Your task to perform on an android device: turn off javascript in the chrome app Image 0: 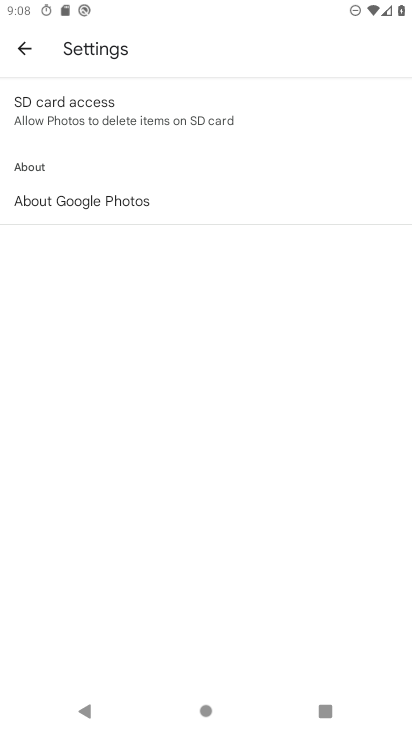
Step 0: press home button
Your task to perform on an android device: turn off javascript in the chrome app Image 1: 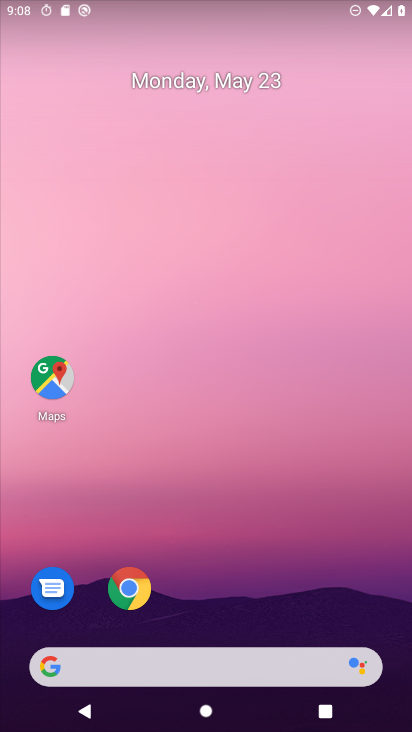
Step 1: click (129, 587)
Your task to perform on an android device: turn off javascript in the chrome app Image 2: 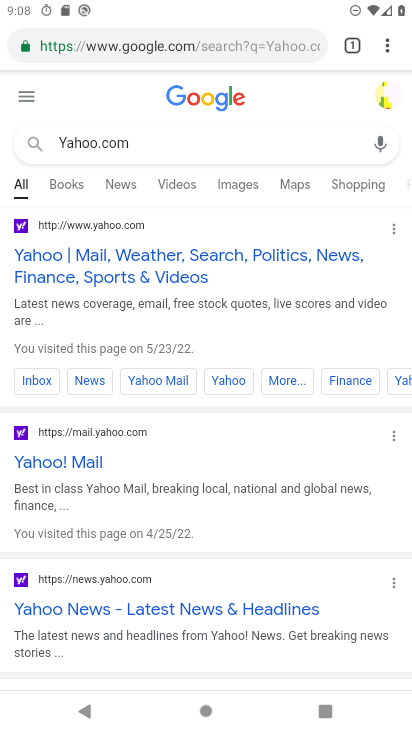
Step 2: click (383, 39)
Your task to perform on an android device: turn off javascript in the chrome app Image 3: 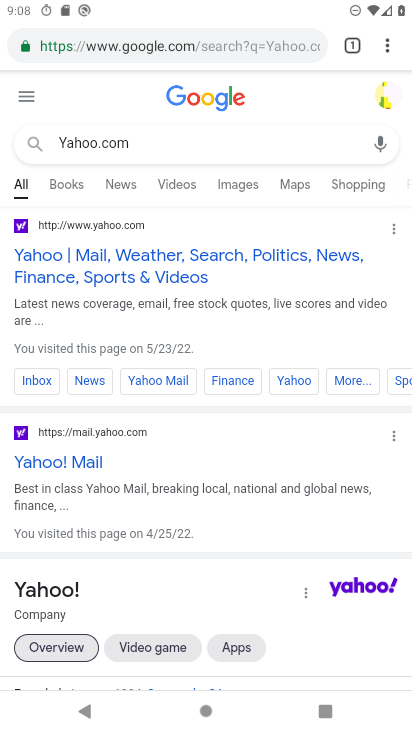
Step 3: click (385, 40)
Your task to perform on an android device: turn off javascript in the chrome app Image 4: 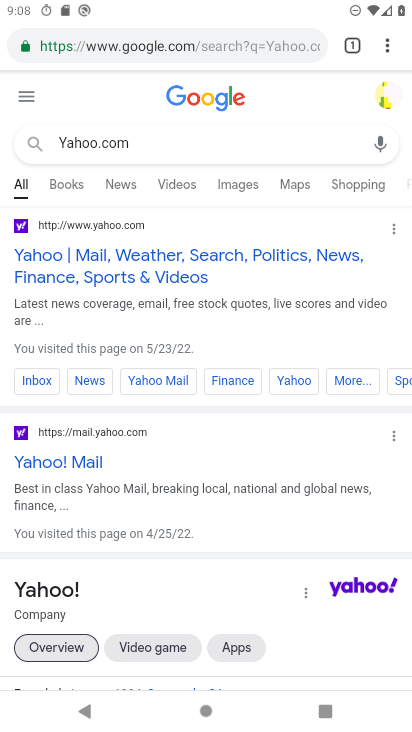
Step 4: click (385, 44)
Your task to perform on an android device: turn off javascript in the chrome app Image 5: 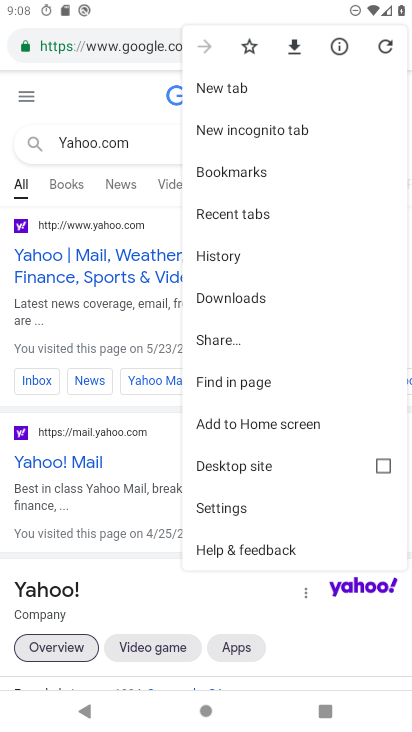
Step 5: click (215, 501)
Your task to perform on an android device: turn off javascript in the chrome app Image 6: 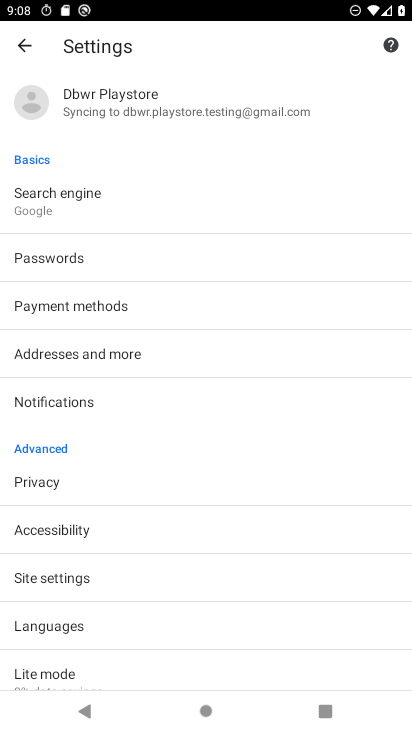
Step 6: click (39, 573)
Your task to perform on an android device: turn off javascript in the chrome app Image 7: 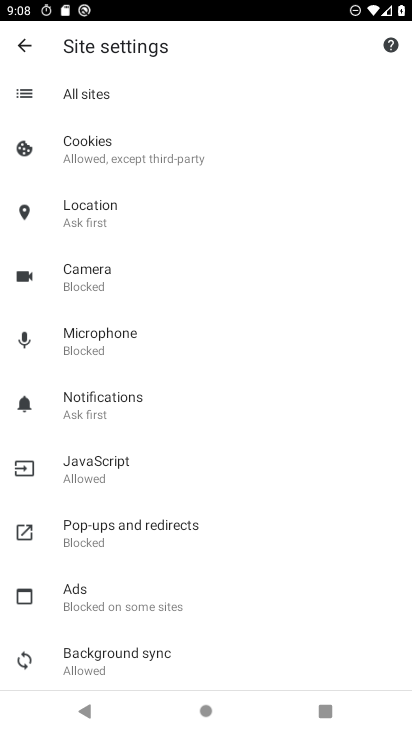
Step 7: click (118, 456)
Your task to perform on an android device: turn off javascript in the chrome app Image 8: 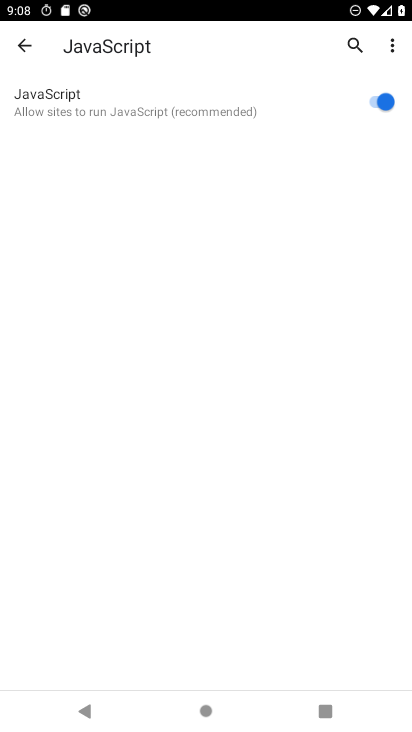
Step 8: click (369, 98)
Your task to perform on an android device: turn off javascript in the chrome app Image 9: 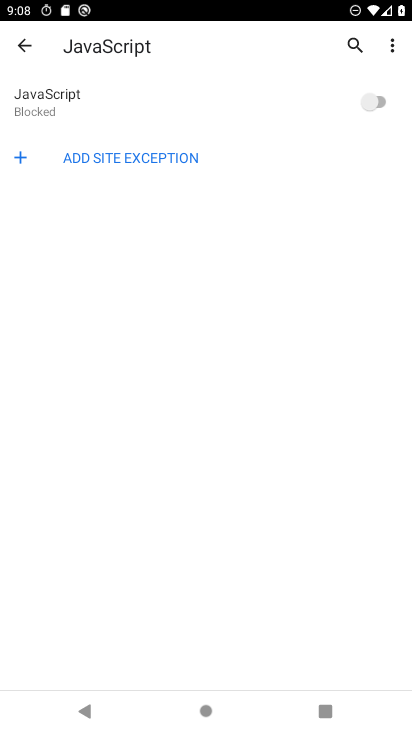
Step 9: task complete